Your task to perform on an android device: Go to Amazon Image 0: 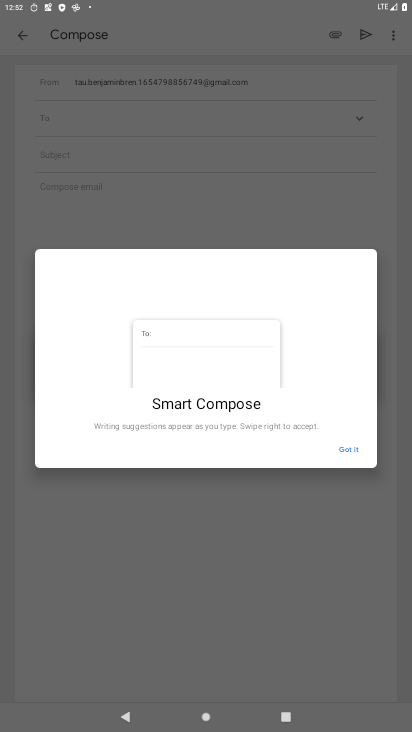
Step 0: press home button
Your task to perform on an android device: Go to Amazon Image 1: 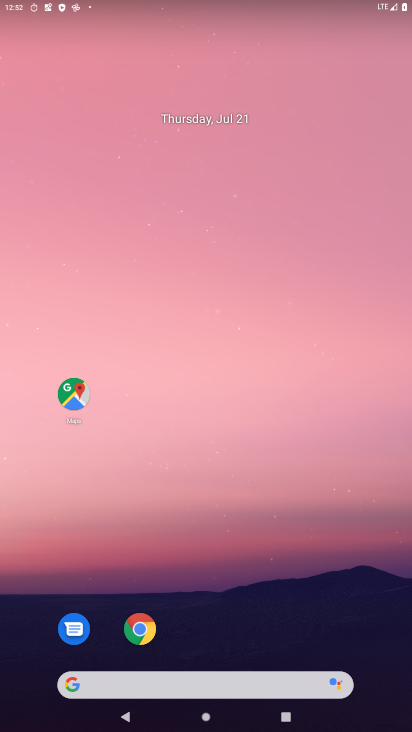
Step 1: drag from (298, 686) to (290, 63)
Your task to perform on an android device: Go to Amazon Image 2: 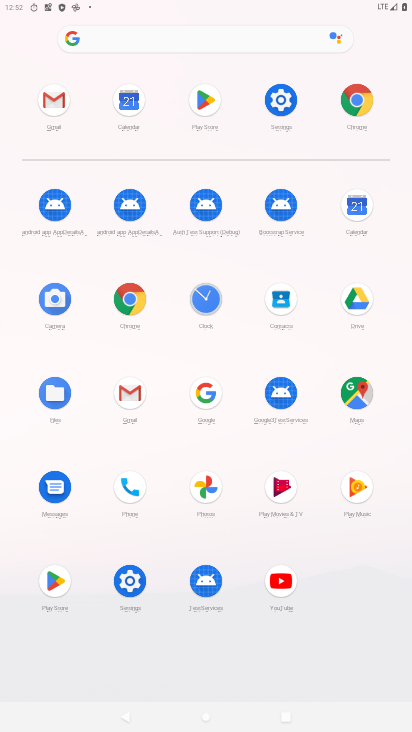
Step 2: click (132, 305)
Your task to perform on an android device: Go to Amazon Image 3: 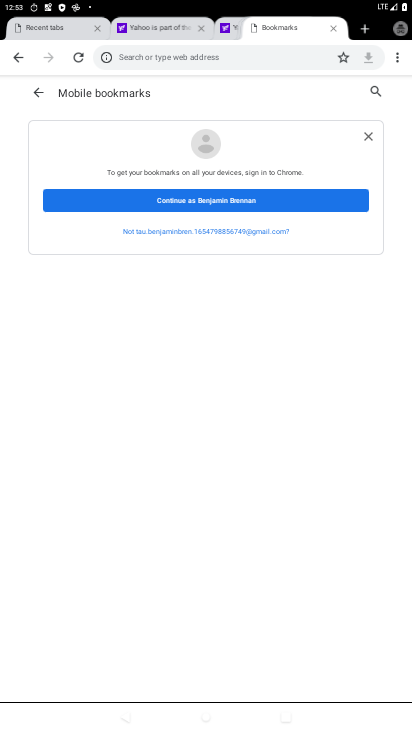
Step 3: click (227, 59)
Your task to perform on an android device: Go to Amazon Image 4: 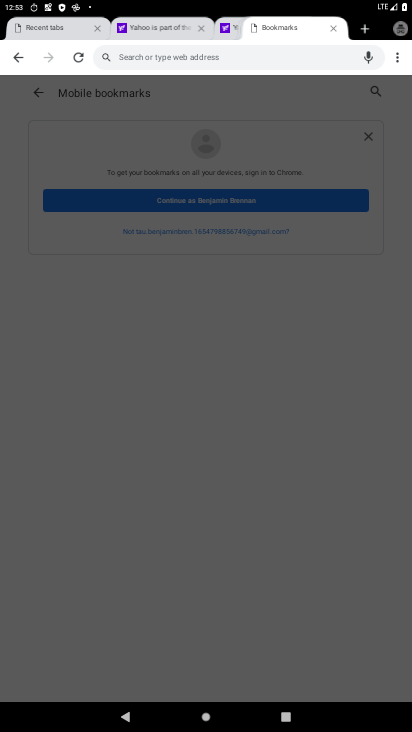
Step 4: type "amazon"
Your task to perform on an android device: Go to Amazon Image 5: 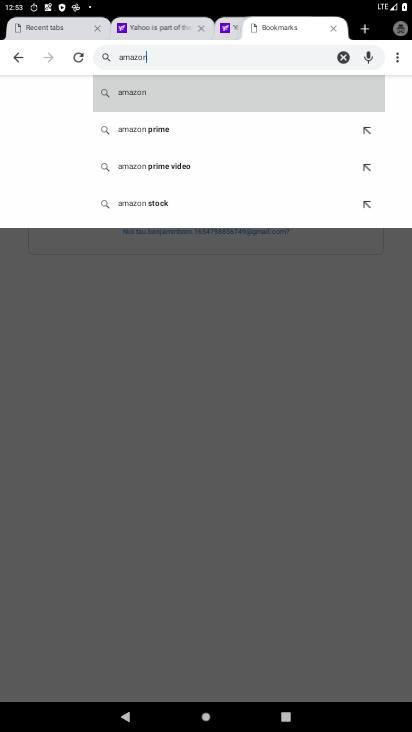
Step 5: click (309, 90)
Your task to perform on an android device: Go to Amazon Image 6: 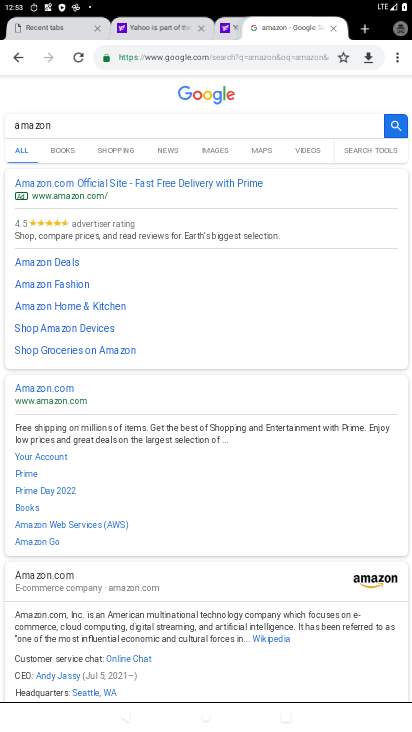
Step 6: task complete